Your task to perform on an android device: Open Chrome and go to settings Image 0: 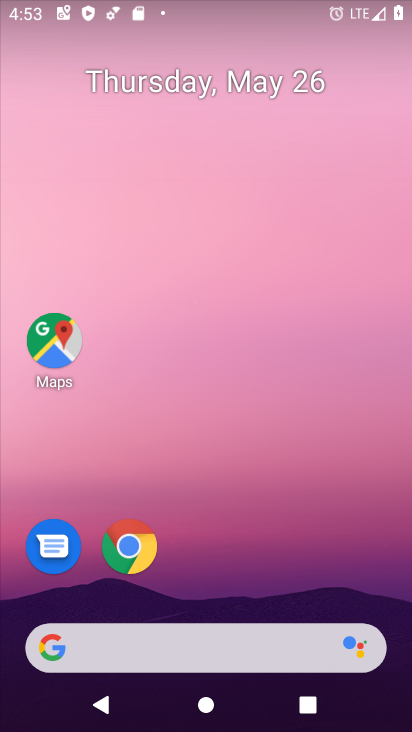
Step 0: click (119, 539)
Your task to perform on an android device: Open Chrome and go to settings Image 1: 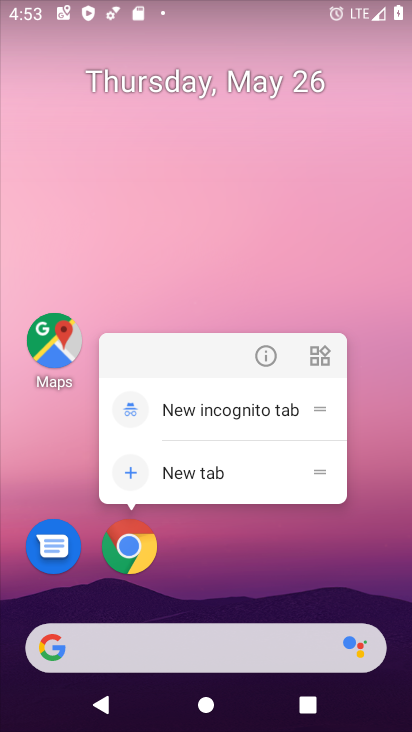
Step 1: click (129, 548)
Your task to perform on an android device: Open Chrome and go to settings Image 2: 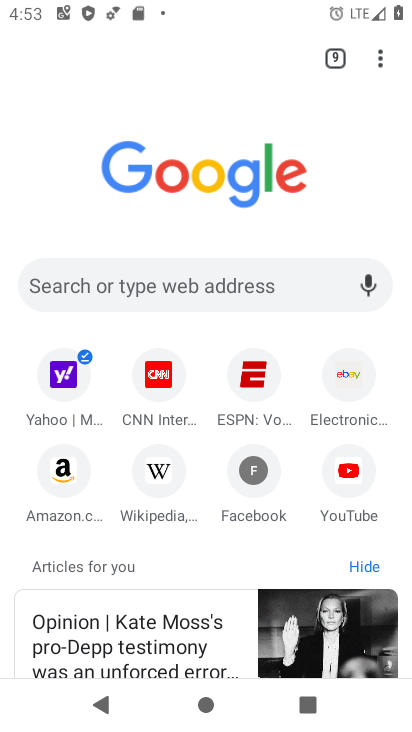
Step 2: task complete